Your task to perform on an android device: turn on sleep mode Image 0: 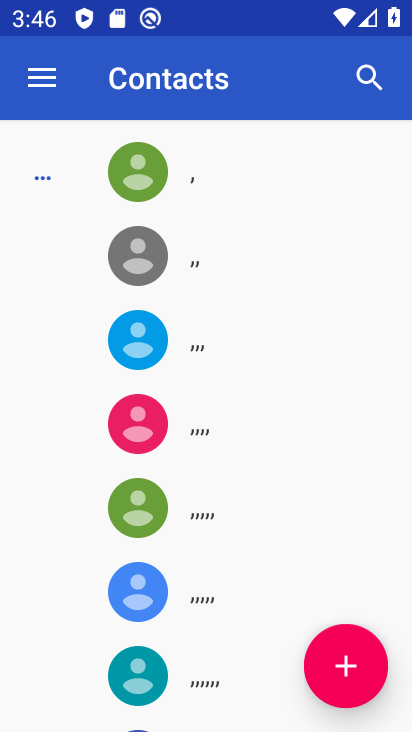
Step 0: press home button
Your task to perform on an android device: turn on sleep mode Image 1: 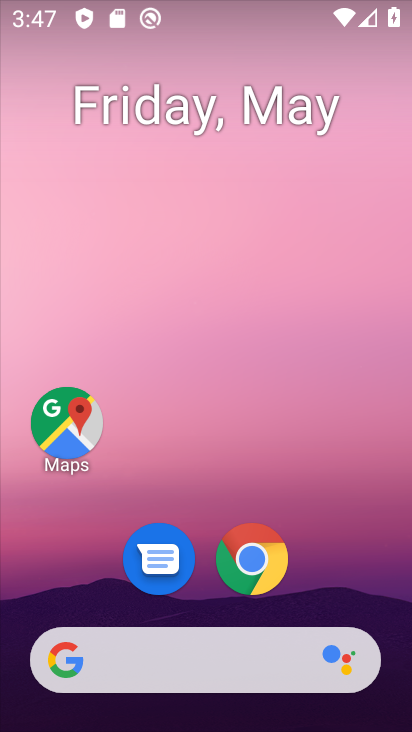
Step 1: drag from (348, 567) to (302, 275)
Your task to perform on an android device: turn on sleep mode Image 2: 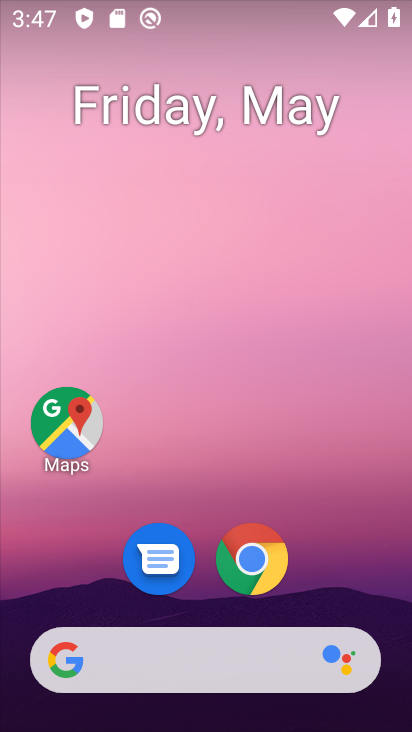
Step 2: drag from (315, 585) to (306, 212)
Your task to perform on an android device: turn on sleep mode Image 3: 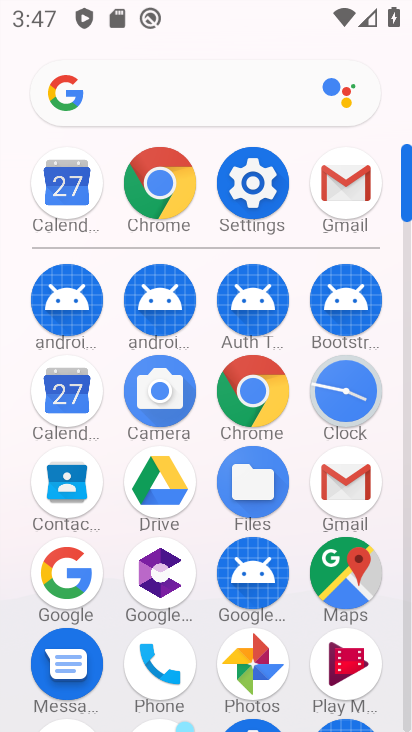
Step 3: click (257, 202)
Your task to perform on an android device: turn on sleep mode Image 4: 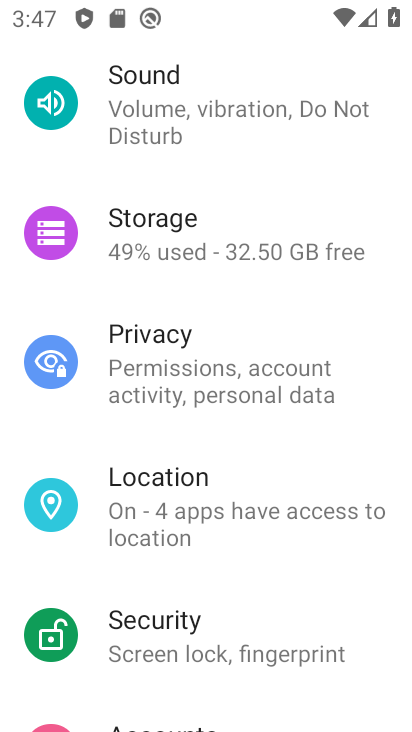
Step 4: drag from (271, 273) to (283, 673)
Your task to perform on an android device: turn on sleep mode Image 5: 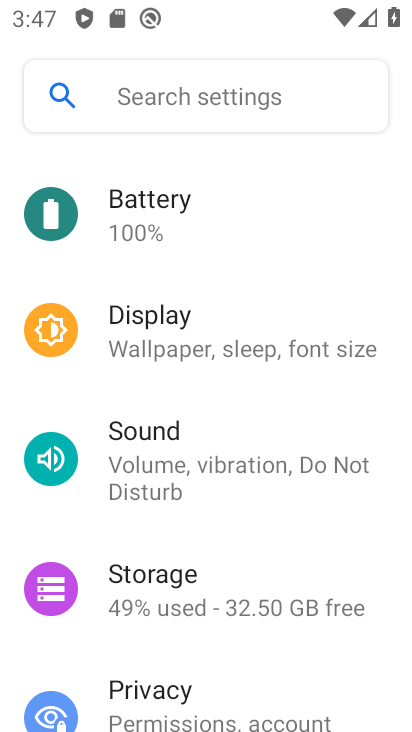
Step 5: click (292, 394)
Your task to perform on an android device: turn on sleep mode Image 6: 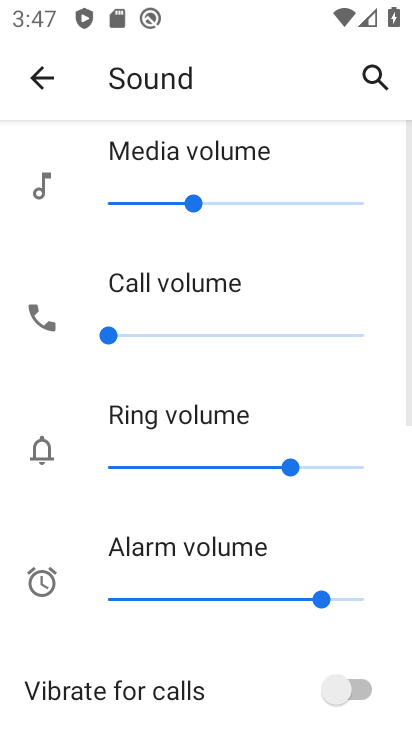
Step 6: press back button
Your task to perform on an android device: turn on sleep mode Image 7: 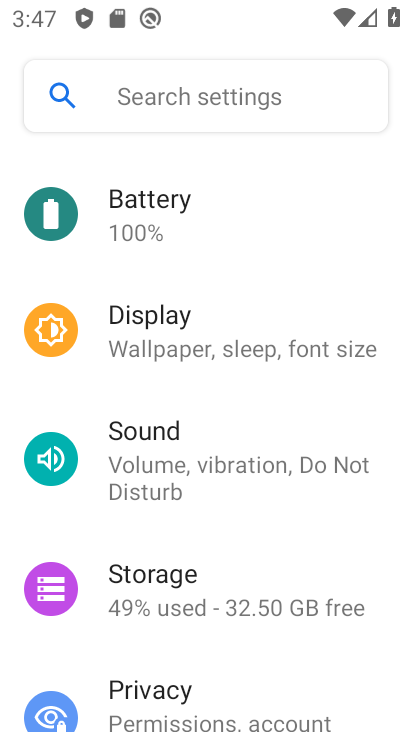
Step 7: click (298, 360)
Your task to perform on an android device: turn on sleep mode Image 8: 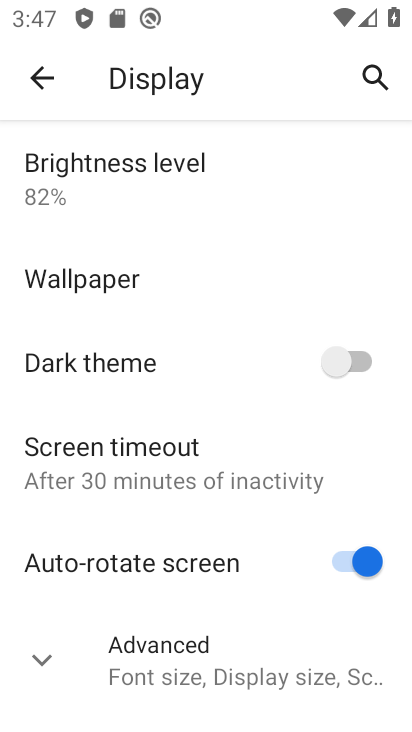
Step 8: drag from (151, 649) to (166, 385)
Your task to perform on an android device: turn on sleep mode Image 9: 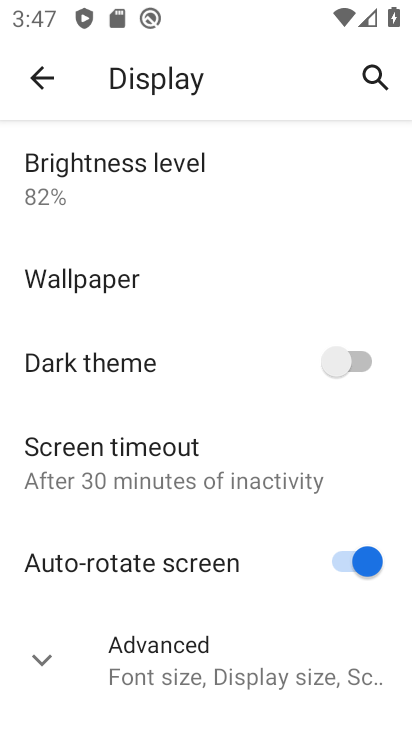
Step 9: click (168, 662)
Your task to perform on an android device: turn on sleep mode Image 10: 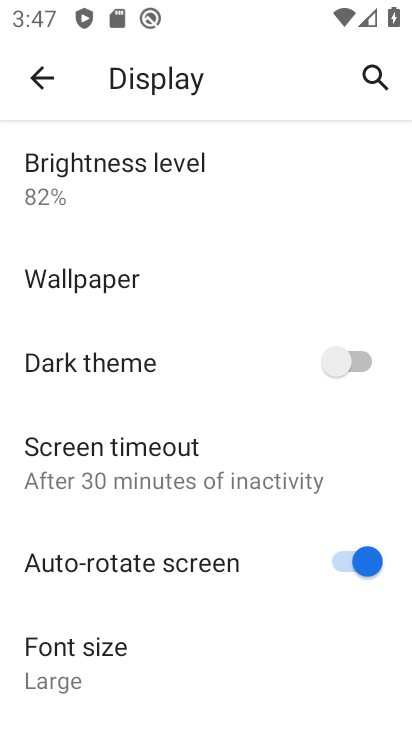
Step 10: task complete